Your task to perform on an android device: toggle wifi Image 0: 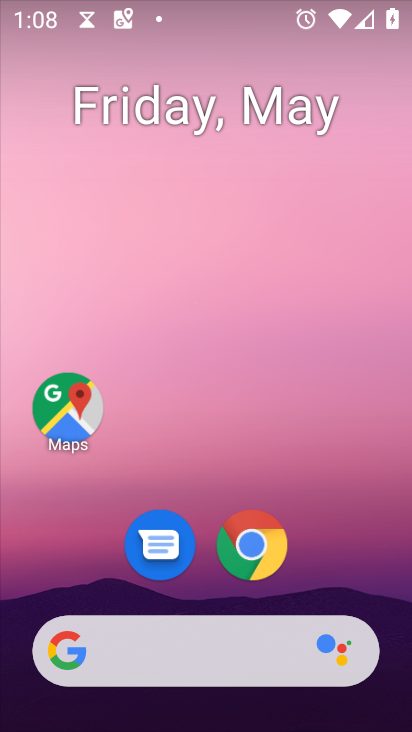
Step 0: drag from (322, 539) to (292, 31)
Your task to perform on an android device: toggle wifi Image 1: 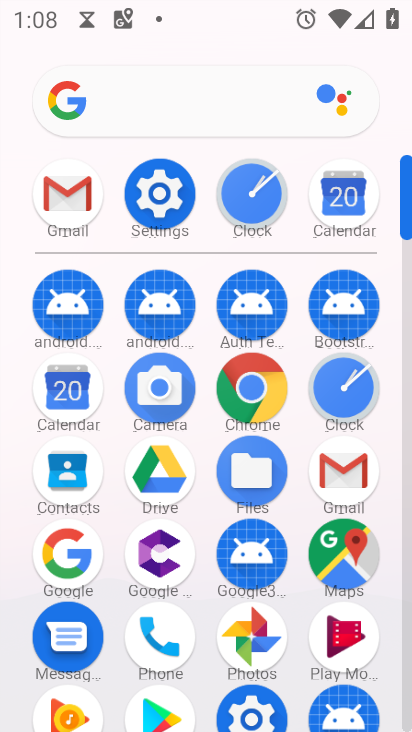
Step 1: click (176, 201)
Your task to perform on an android device: toggle wifi Image 2: 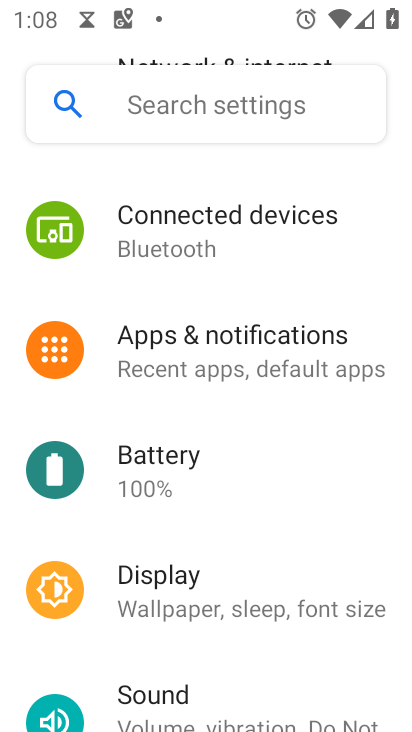
Step 2: drag from (176, 201) to (235, 502)
Your task to perform on an android device: toggle wifi Image 3: 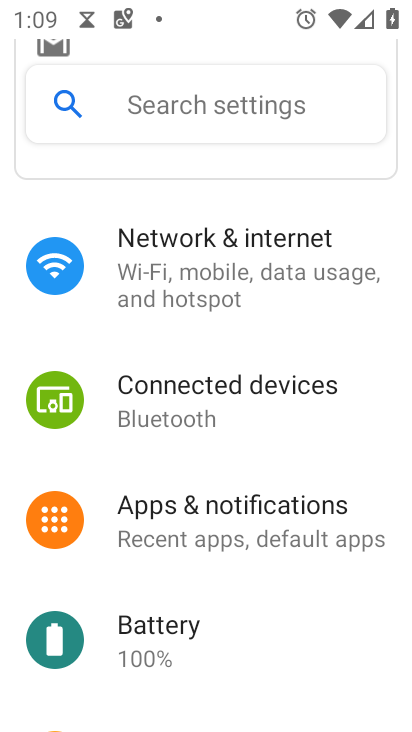
Step 3: click (215, 310)
Your task to perform on an android device: toggle wifi Image 4: 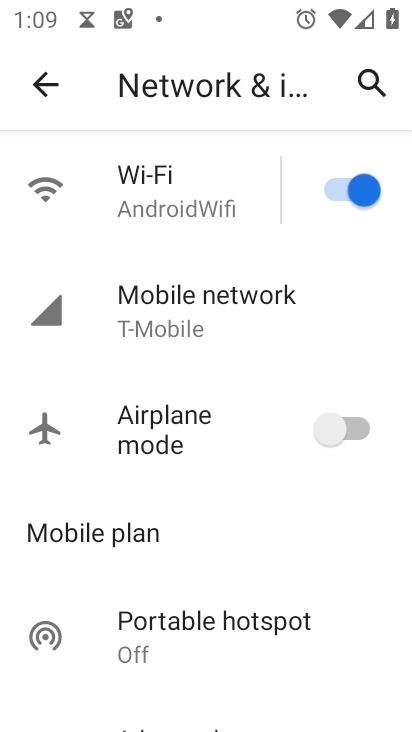
Step 4: click (341, 185)
Your task to perform on an android device: toggle wifi Image 5: 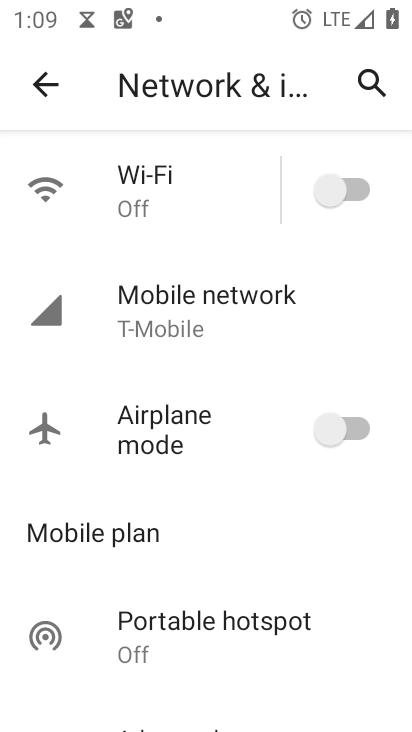
Step 5: task complete